Your task to perform on an android device: Go to privacy settings Image 0: 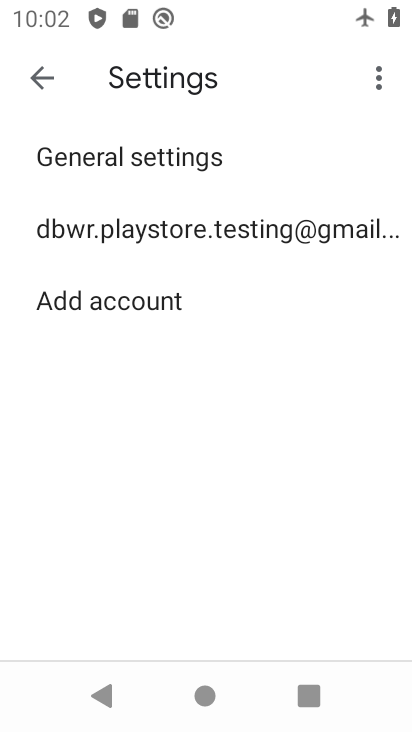
Step 0: press home button
Your task to perform on an android device: Go to privacy settings Image 1: 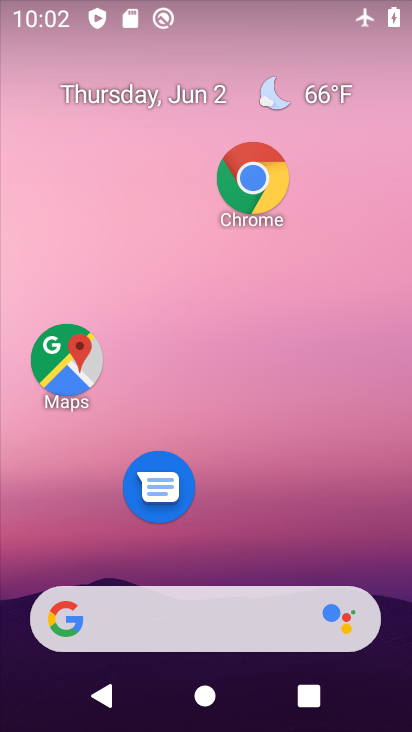
Step 1: drag from (233, 726) to (235, 54)
Your task to perform on an android device: Go to privacy settings Image 2: 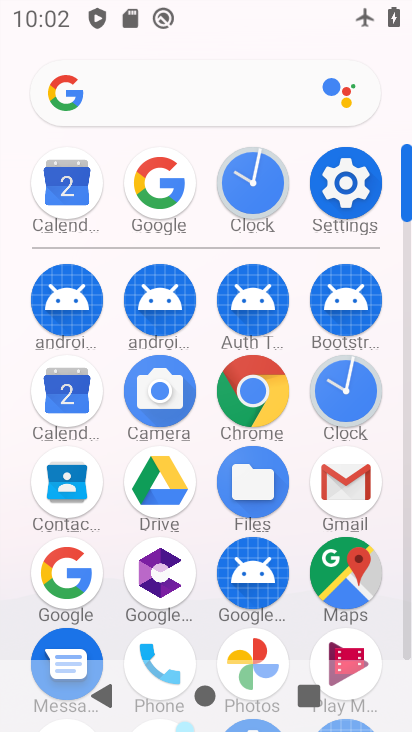
Step 2: click (358, 176)
Your task to perform on an android device: Go to privacy settings Image 3: 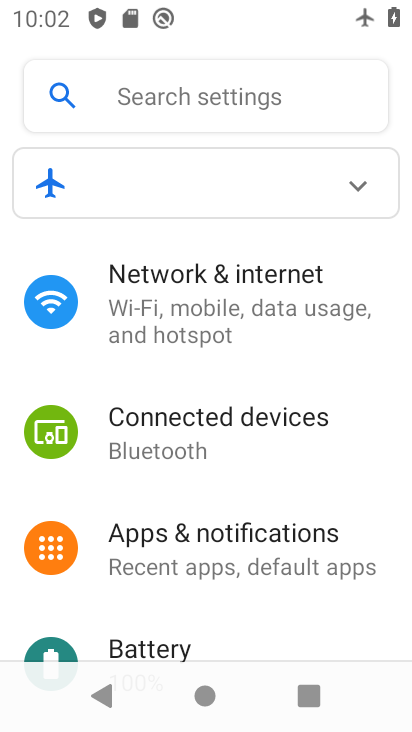
Step 3: drag from (215, 626) to (218, 186)
Your task to perform on an android device: Go to privacy settings Image 4: 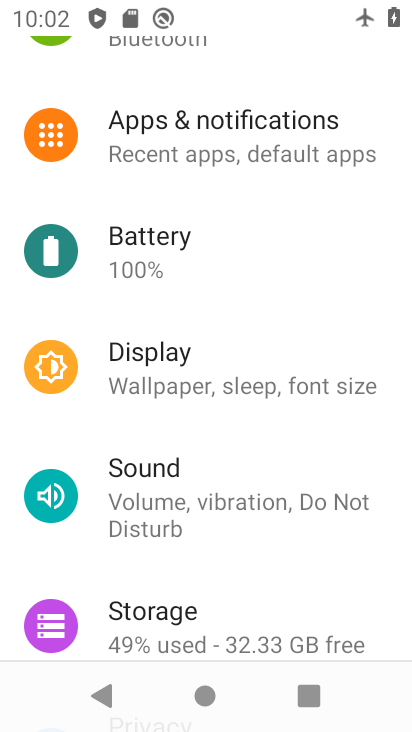
Step 4: drag from (213, 624) to (191, 253)
Your task to perform on an android device: Go to privacy settings Image 5: 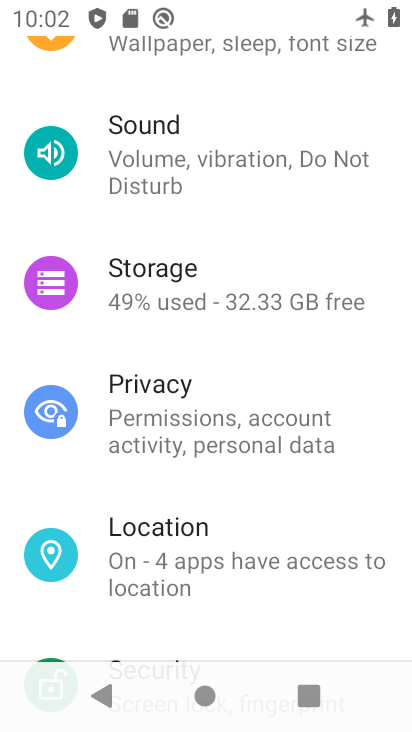
Step 5: click (152, 418)
Your task to perform on an android device: Go to privacy settings Image 6: 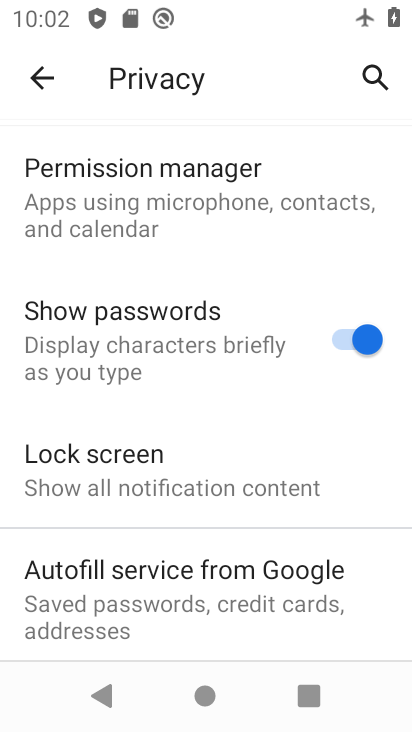
Step 6: task complete